Your task to perform on an android device: Open Google Maps Image 0: 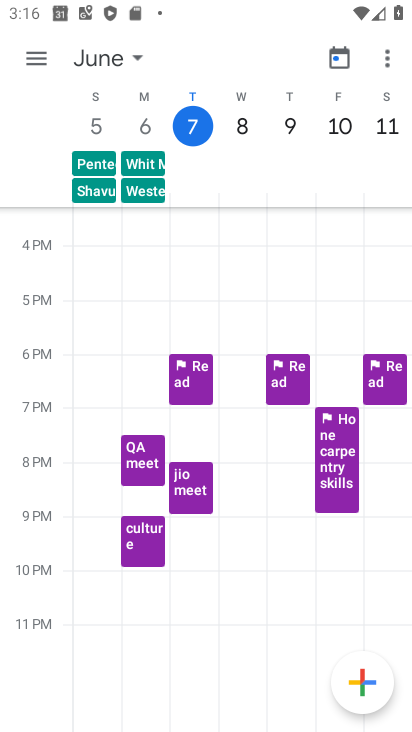
Step 0: press home button
Your task to perform on an android device: Open Google Maps Image 1: 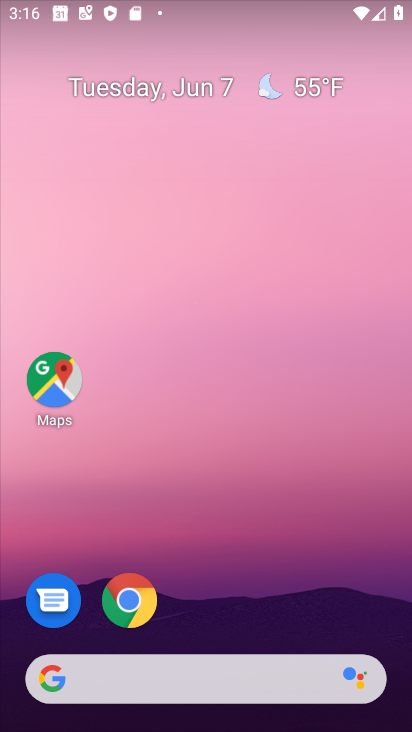
Step 1: click (43, 385)
Your task to perform on an android device: Open Google Maps Image 2: 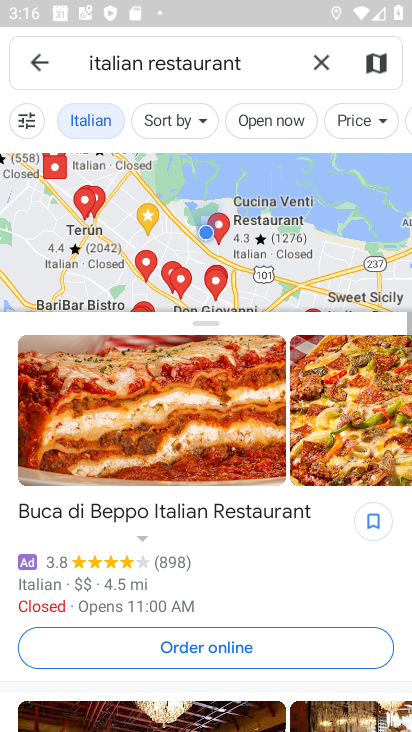
Step 2: task complete